Your task to perform on an android device: Open the phone app and click the voicemail tab. Image 0: 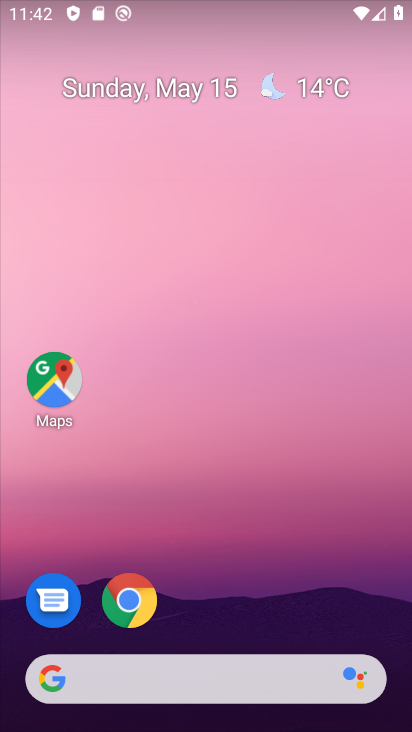
Step 0: drag from (261, 561) to (261, 17)
Your task to perform on an android device: Open the phone app and click the voicemail tab. Image 1: 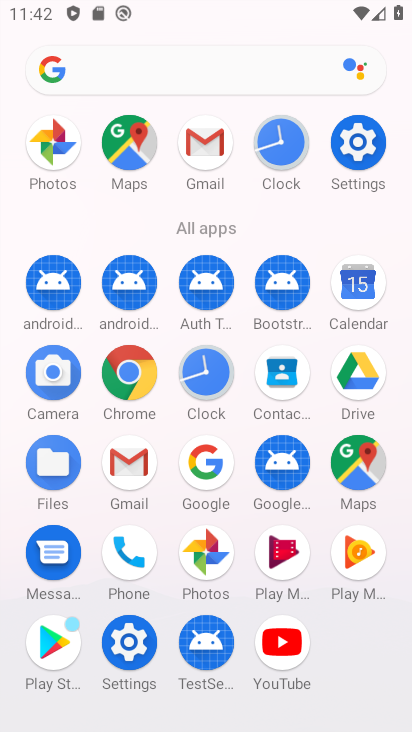
Step 1: drag from (12, 572) to (8, 222)
Your task to perform on an android device: Open the phone app and click the voicemail tab. Image 2: 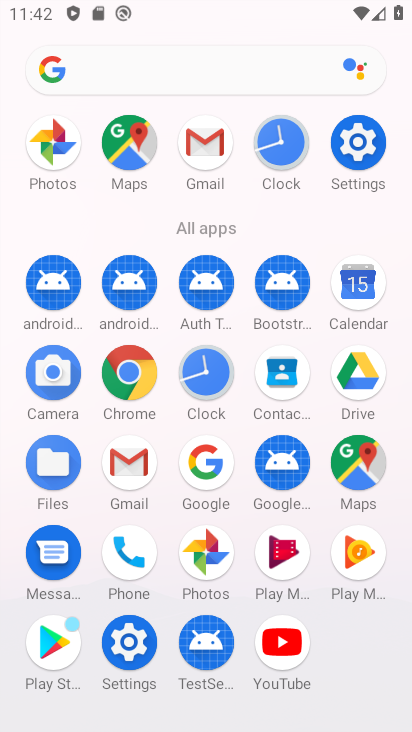
Step 2: click (284, 551)
Your task to perform on an android device: Open the phone app and click the voicemail tab. Image 3: 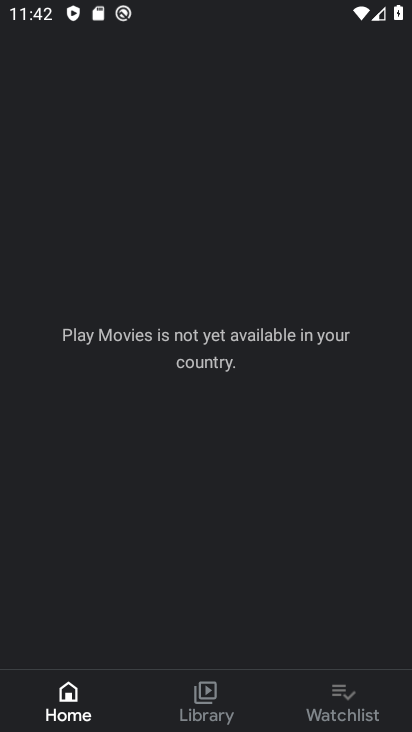
Step 3: click (344, 708)
Your task to perform on an android device: Open the phone app and click the voicemail tab. Image 4: 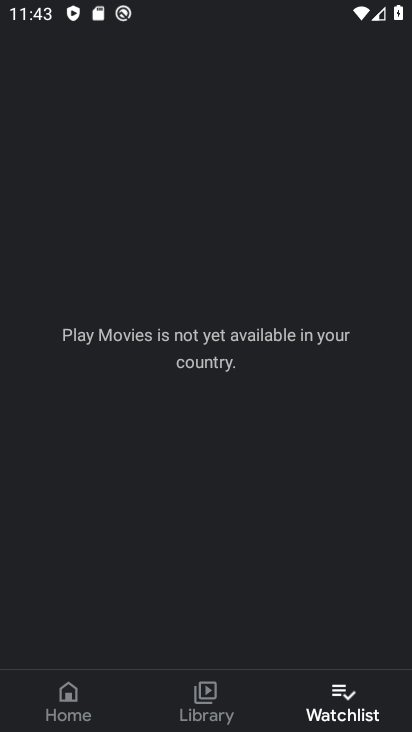
Step 4: task complete